Your task to perform on an android device: Open calendar and show me the third week of next month Image 0: 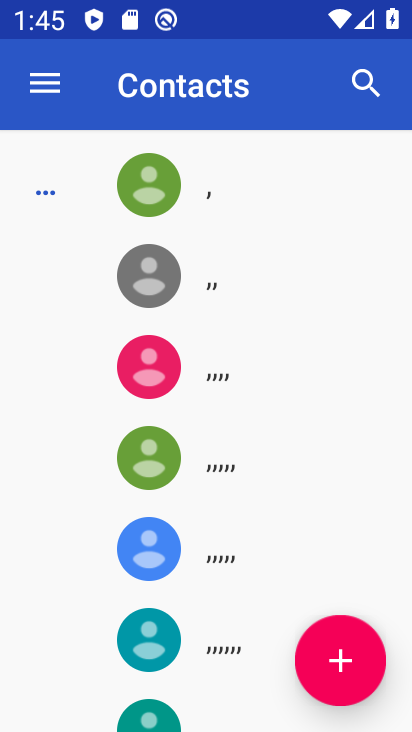
Step 0: press back button
Your task to perform on an android device: Open calendar and show me the third week of next month Image 1: 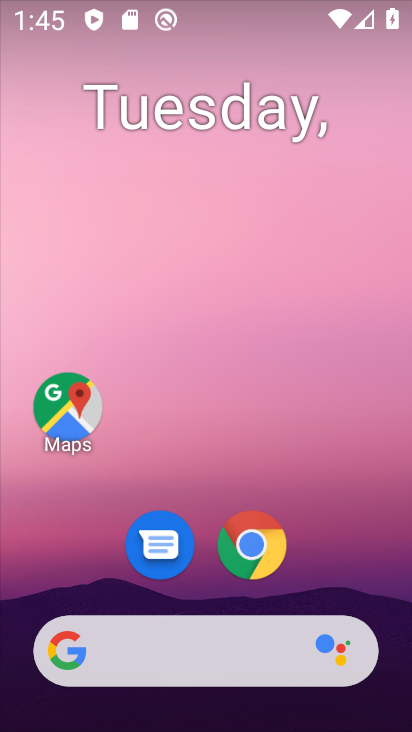
Step 1: drag from (328, 535) to (253, 25)
Your task to perform on an android device: Open calendar and show me the third week of next month Image 2: 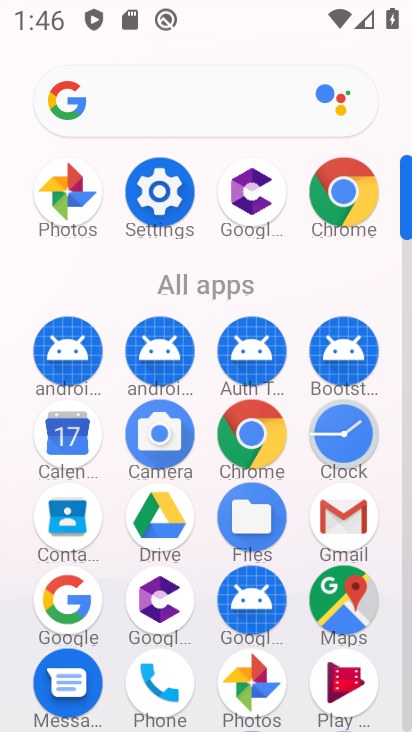
Step 2: drag from (0, 572) to (18, 284)
Your task to perform on an android device: Open calendar and show me the third week of next month Image 3: 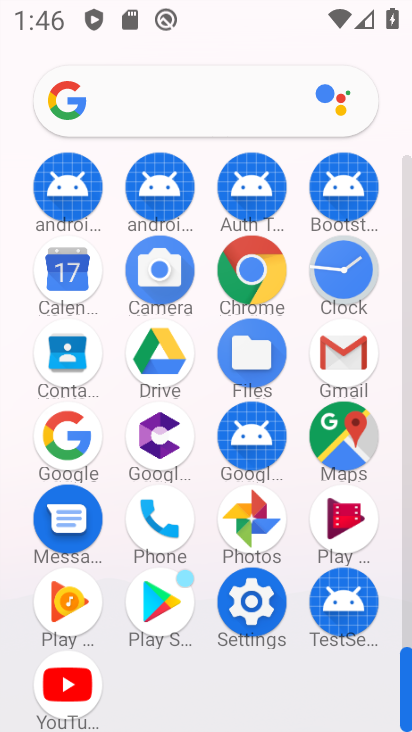
Step 3: click (63, 266)
Your task to perform on an android device: Open calendar and show me the third week of next month Image 4: 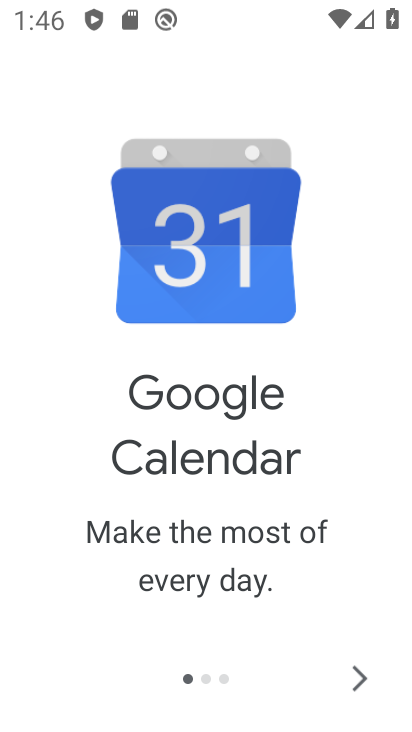
Step 4: click (362, 685)
Your task to perform on an android device: Open calendar and show me the third week of next month Image 5: 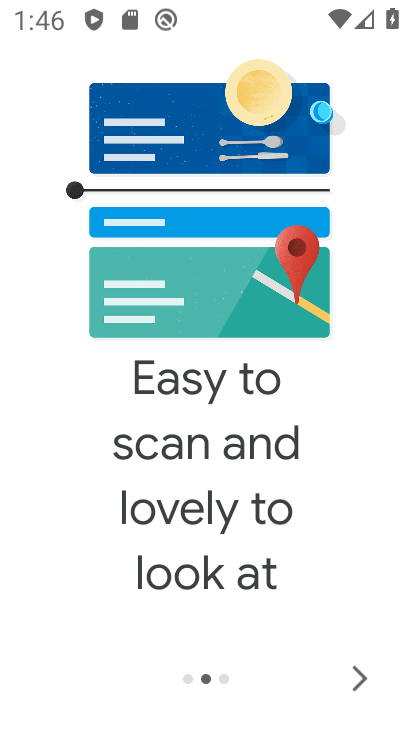
Step 5: click (356, 684)
Your task to perform on an android device: Open calendar and show me the third week of next month Image 6: 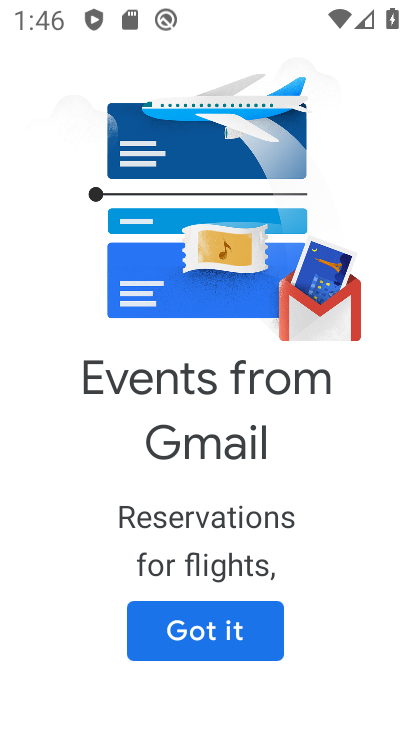
Step 6: click (252, 630)
Your task to perform on an android device: Open calendar and show me the third week of next month Image 7: 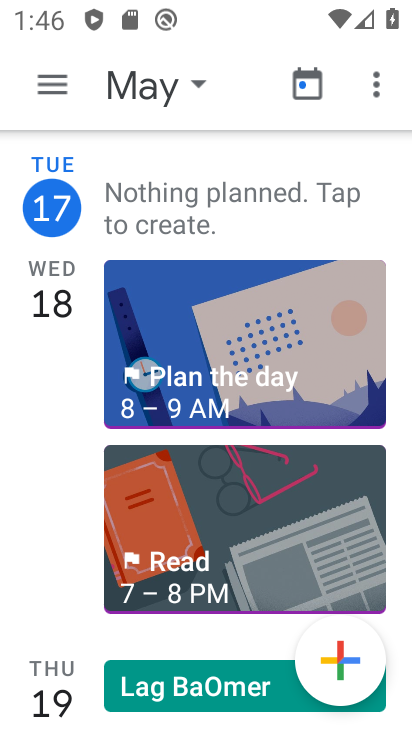
Step 7: click (159, 89)
Your task to perform on an android device: Open calendar and show me the third week of next month Image 8: 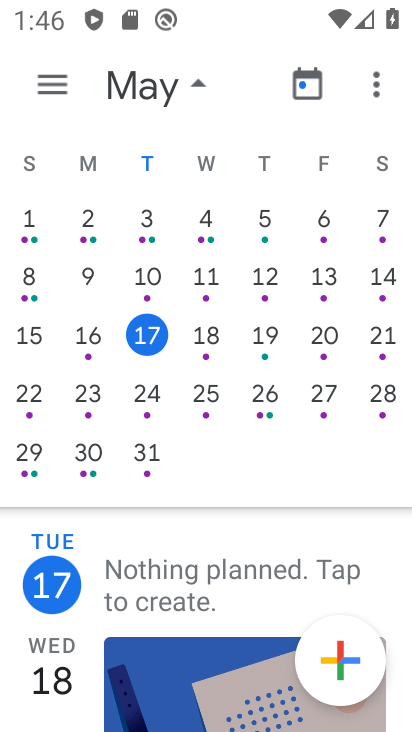
Step 8: drag from (379, 331) to (0, 317)
Your task to perform on an android device: Open calendar and show me the third week of next month Image 9: 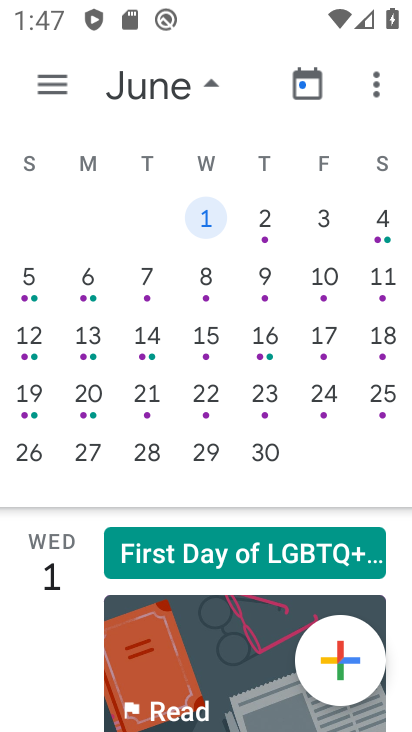
Step 9: click (29, 333)
Your task to perform on an android device: Open calendar and show me the third week of next month Image 10: 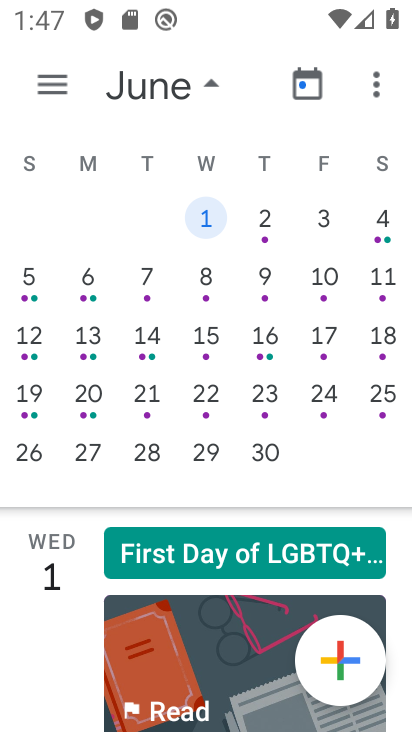
Step 10: click (32, 329)
Your task to perform on an android device: Open calendar and show me the third week of next month Image 11: 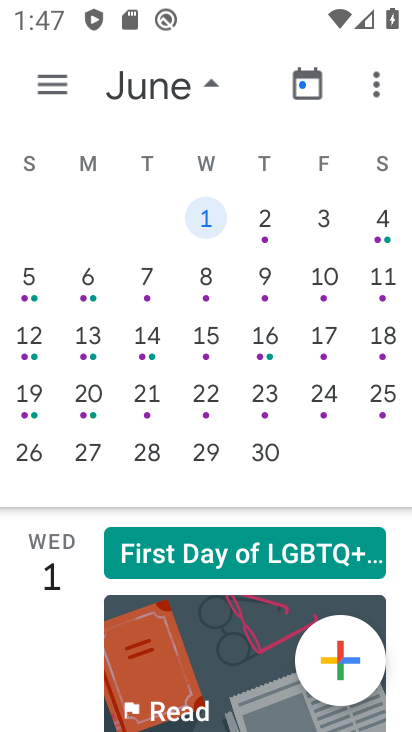
Step 11: click (43, 332)
Your task to perform on an android device: Open calendar and show me the third week of next month Image 12: 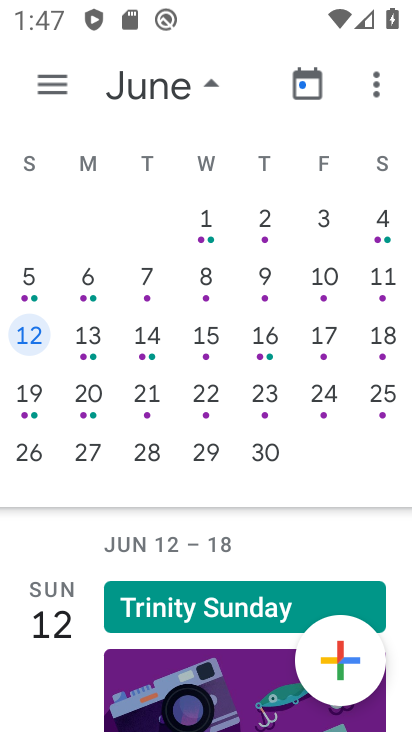
Step 12: click (51, 74)
Your task to perform on an android device: Open calendar and show me the third week of next month Image 13: 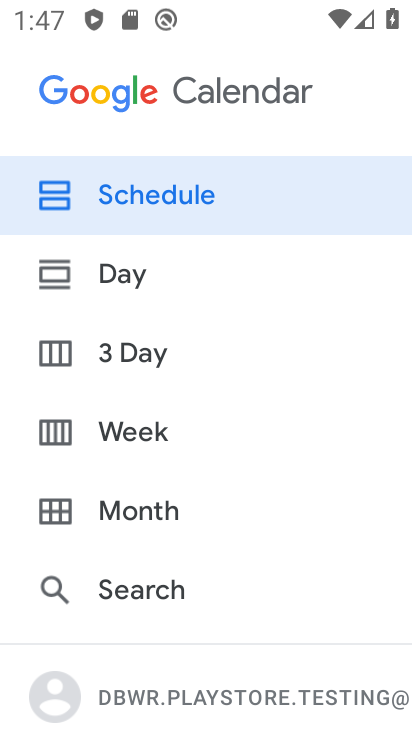
Step 13: click (148, 429)
Your task to perform on an android device: Open calendar and show me the third week of next month Image 14: 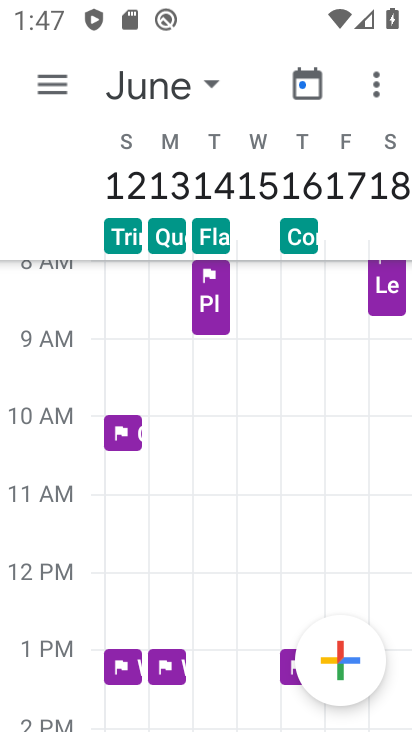
Step 14: task complete